Your task to perform on an android device: Open location settings Image 0: 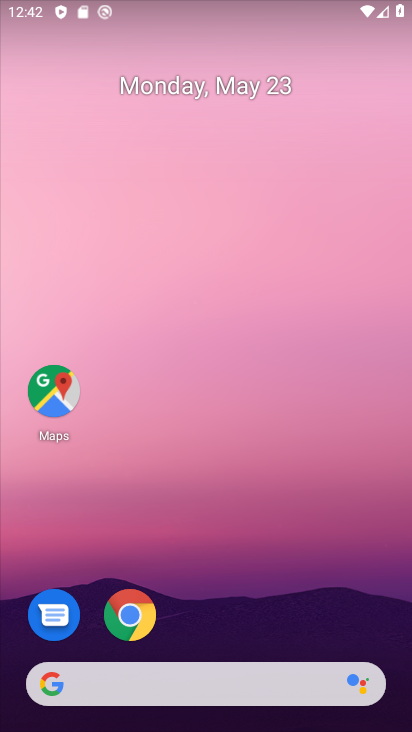
Step 0: drag from (227, 724) to (228, 144)
Your task to perform on an android device: Open location settings Image 1: 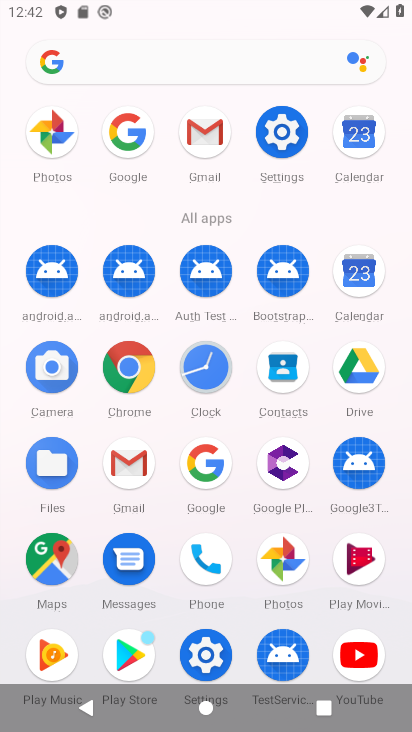
Step 1: click (277, 128)
Your task to perform on an android device: Open location settings Image 2: 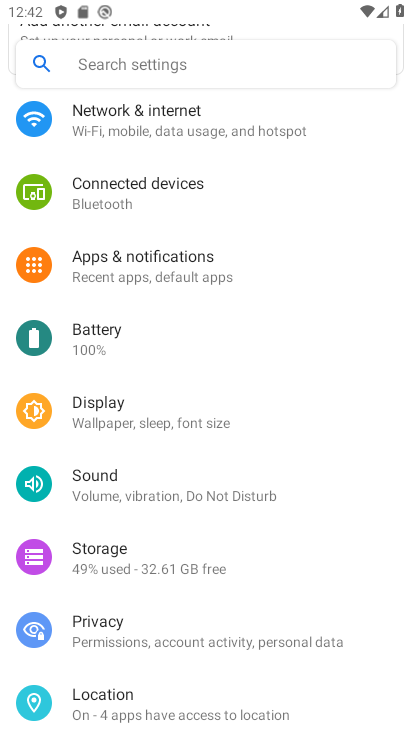
Step 2: click (92, 699)
Your task to perform on an android device: Open location settings Image 3: 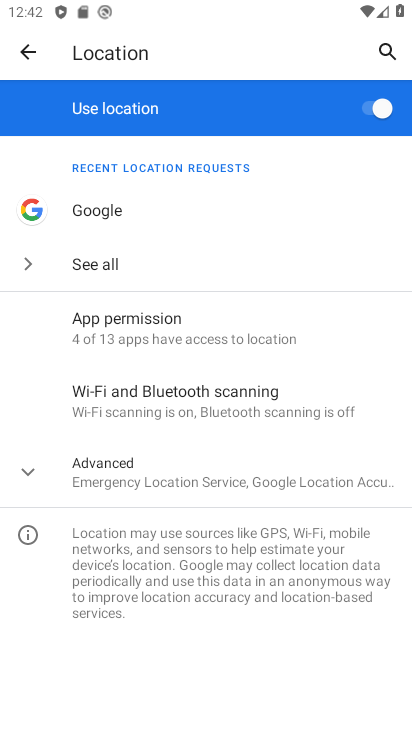
Step 3: task complete